Your task to perform on an android device: toggle airplane mode Image 0: 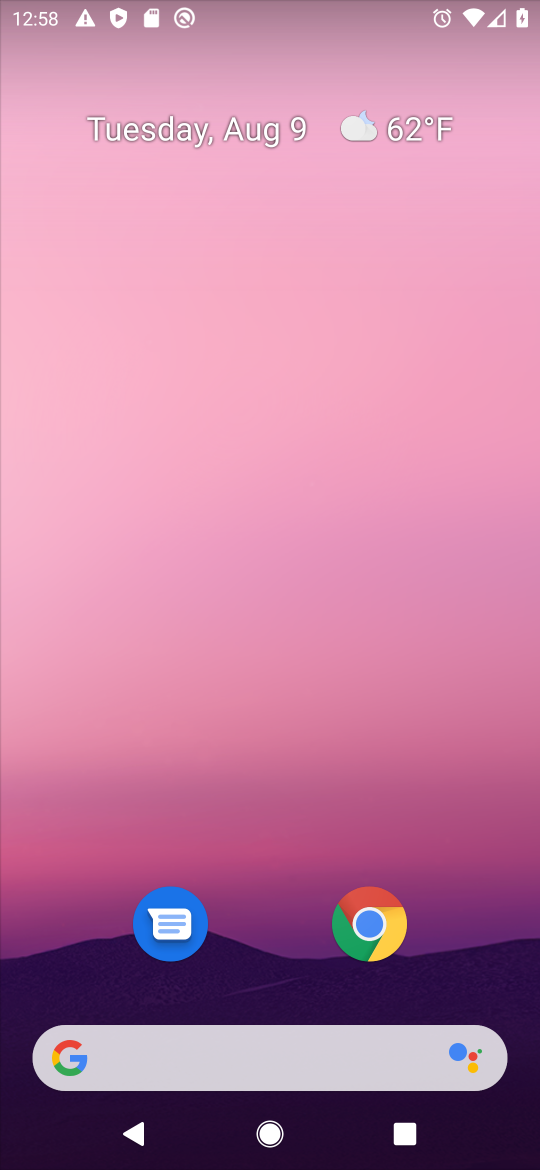
Step 0: drag from (329, 980) to (344, 48)
Your task to perform on an android device: toggle airplane mode Image 1: 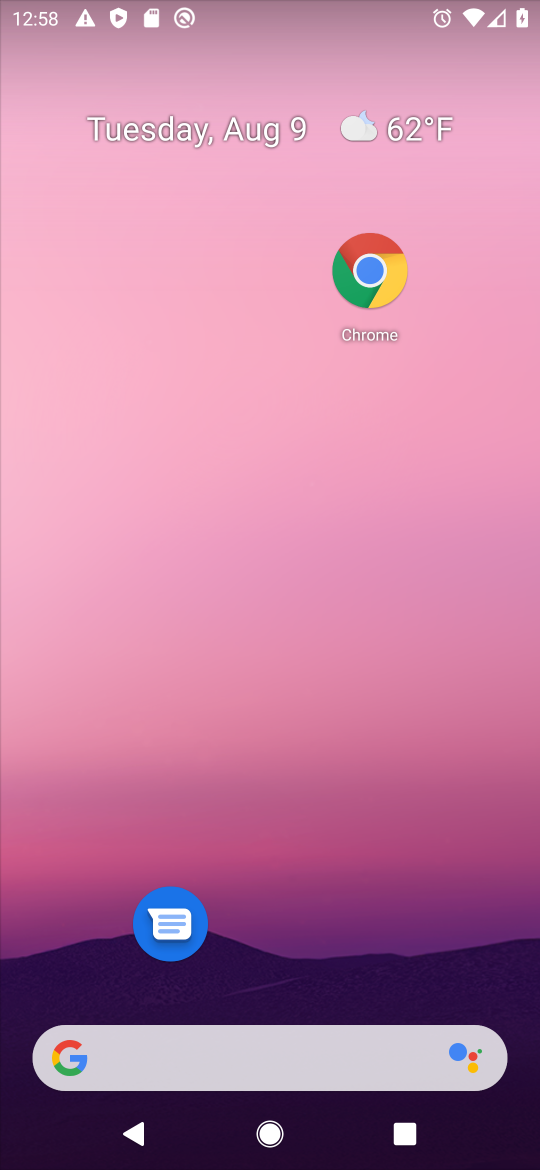
Step 1: task complete